Your task to perform on an android device: empty trash in the gmail app Image 0: 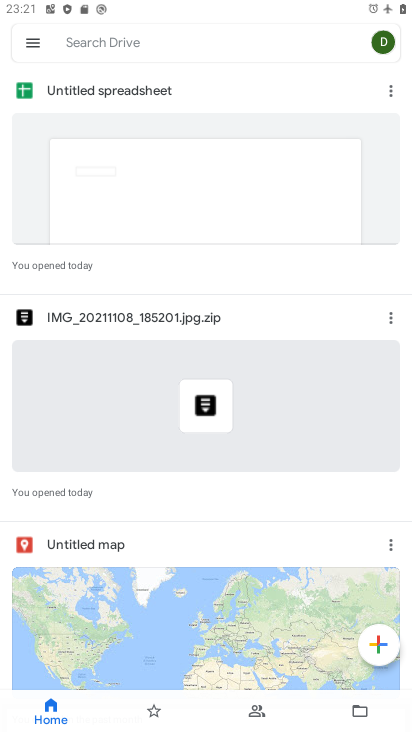
Step 0: press home button
Your task to perform on an android device: empty trash in the gmail app Image 1: 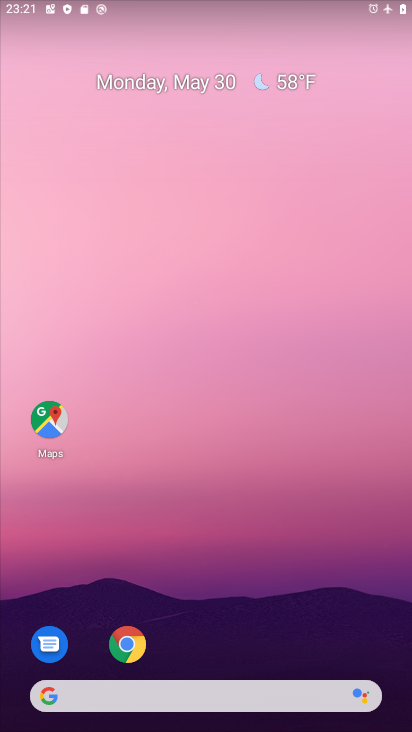
Step 1: drag from (335, 630) to (286, 137)
Your task to perform on an android device: empty trash in the gmail app Image 2: 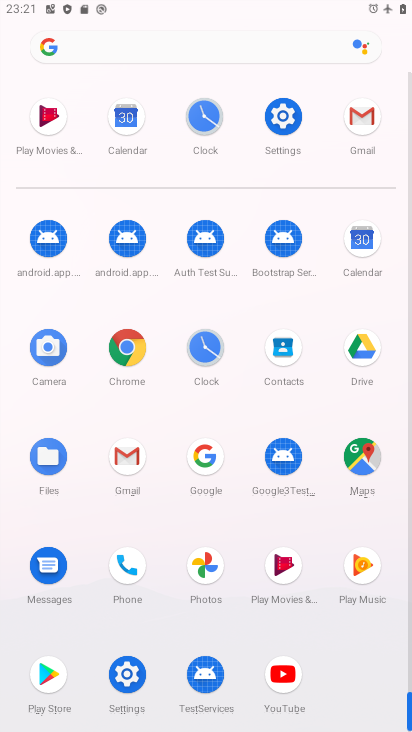
Step 2: click (123, 452)
Your task to perform on an android device: empty trash in the gmail app Image 3: 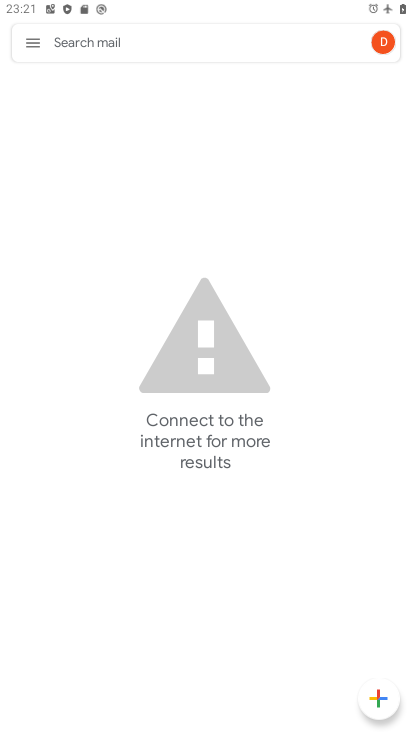
Step 3: click (35, 45)
Your task to perform on an android device: empty trash in the gmail app Image 4: 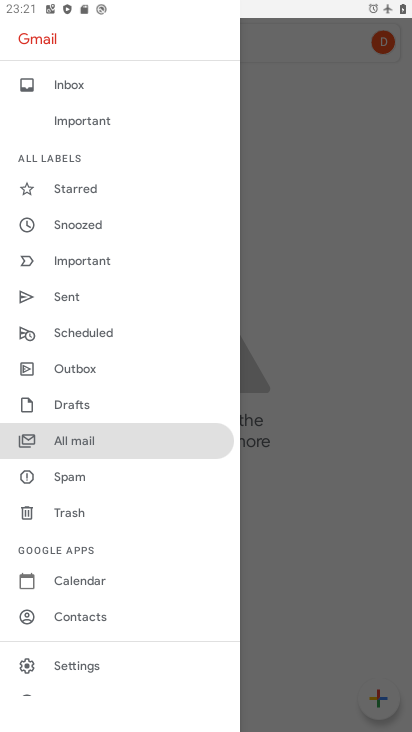
Step 4: click (73, 507)
Your task to perform on an android device: empty trash in the gmail app Image 5: 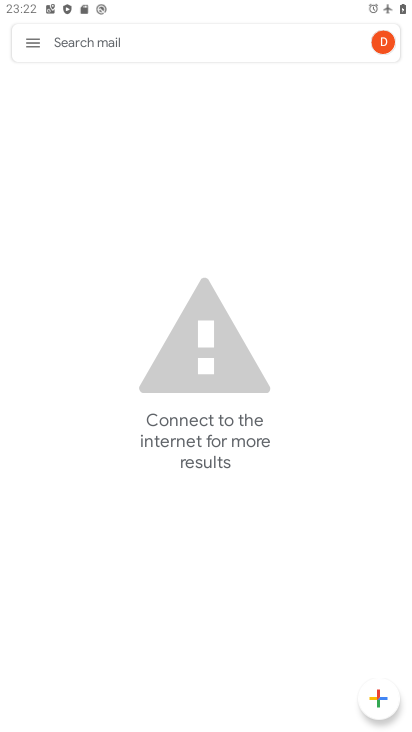
Step 5: task complete